Your task to perform on an android device: What's the weather going to be this weekend? Image 0: 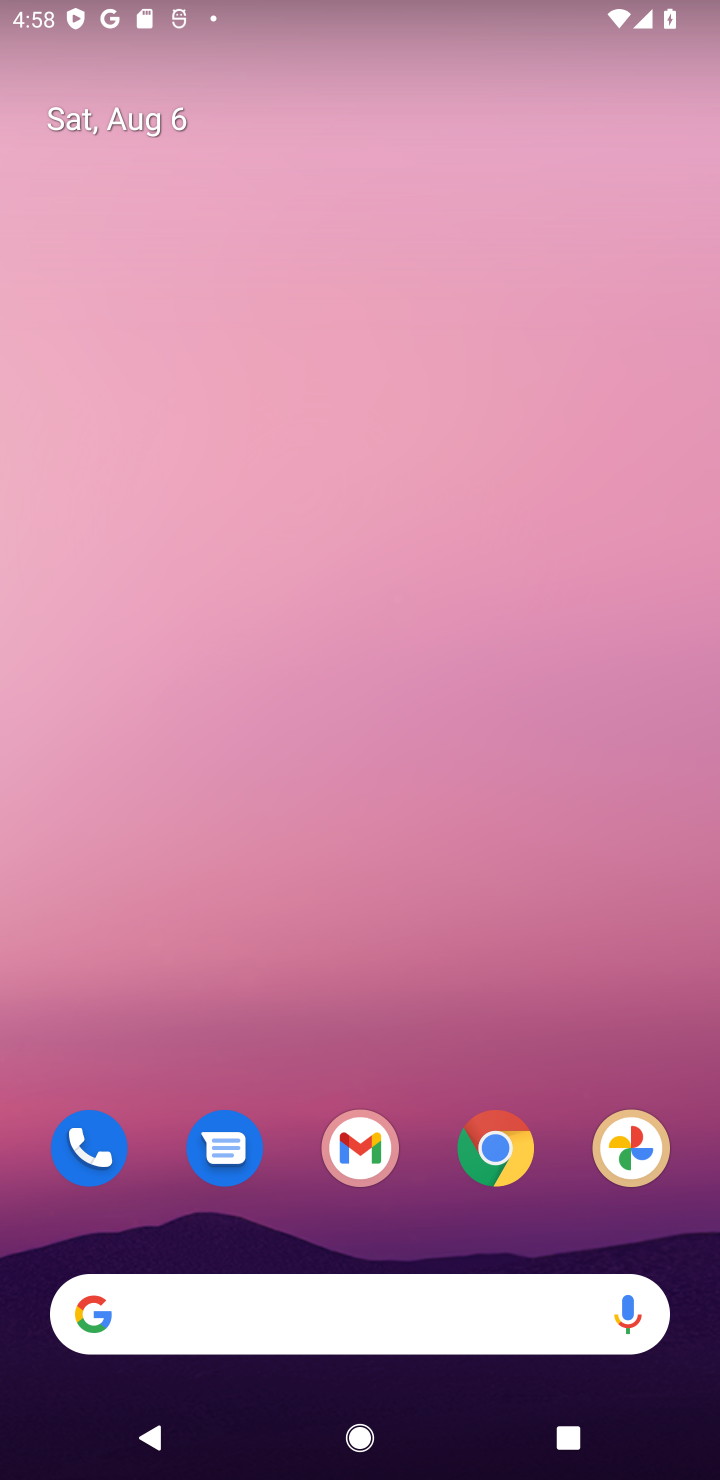
Step 0: drag from (288, 1290) to (679, 210)
Your task to perform on an android device: What's the weather going to be this weekend? Image 1: 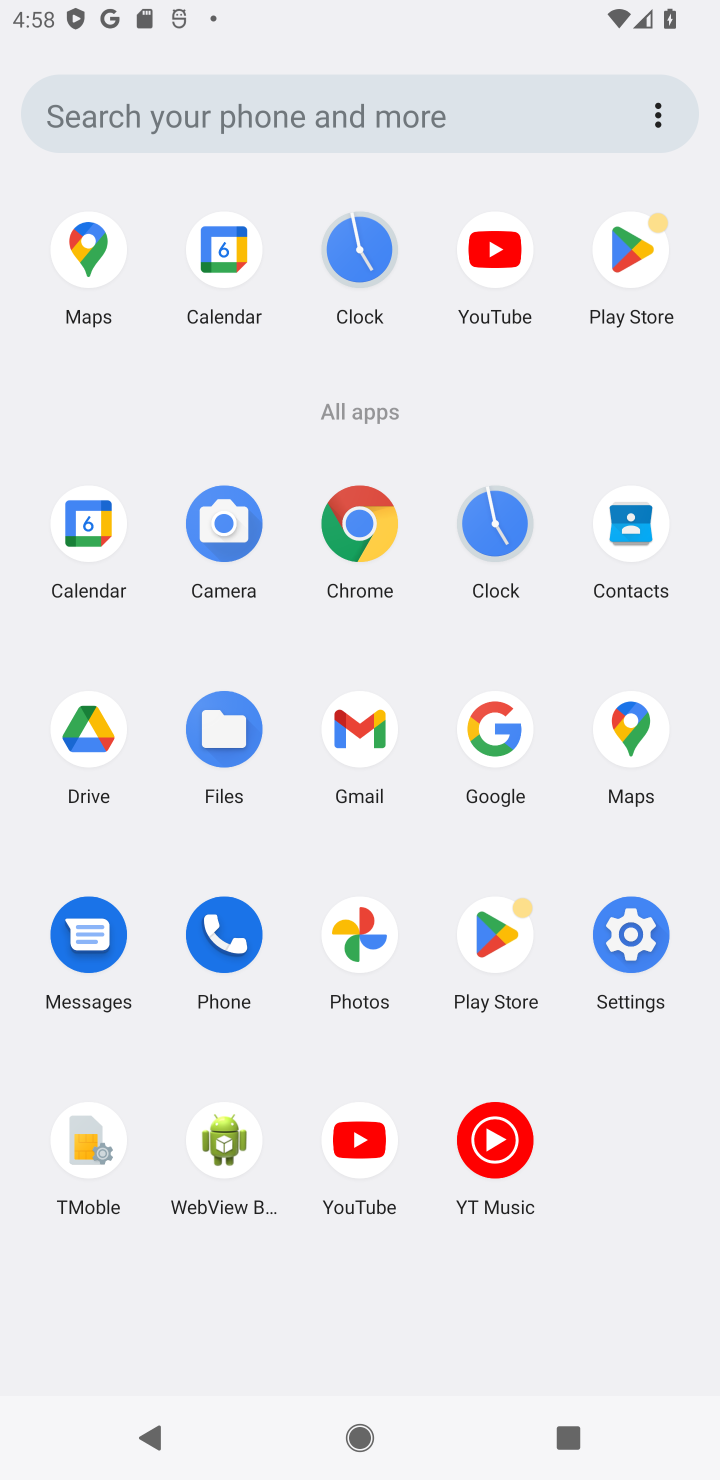
Step 1: click (491, 770)
Your task to perform on an android device: What's the weather going to be this weekend? Image 2: 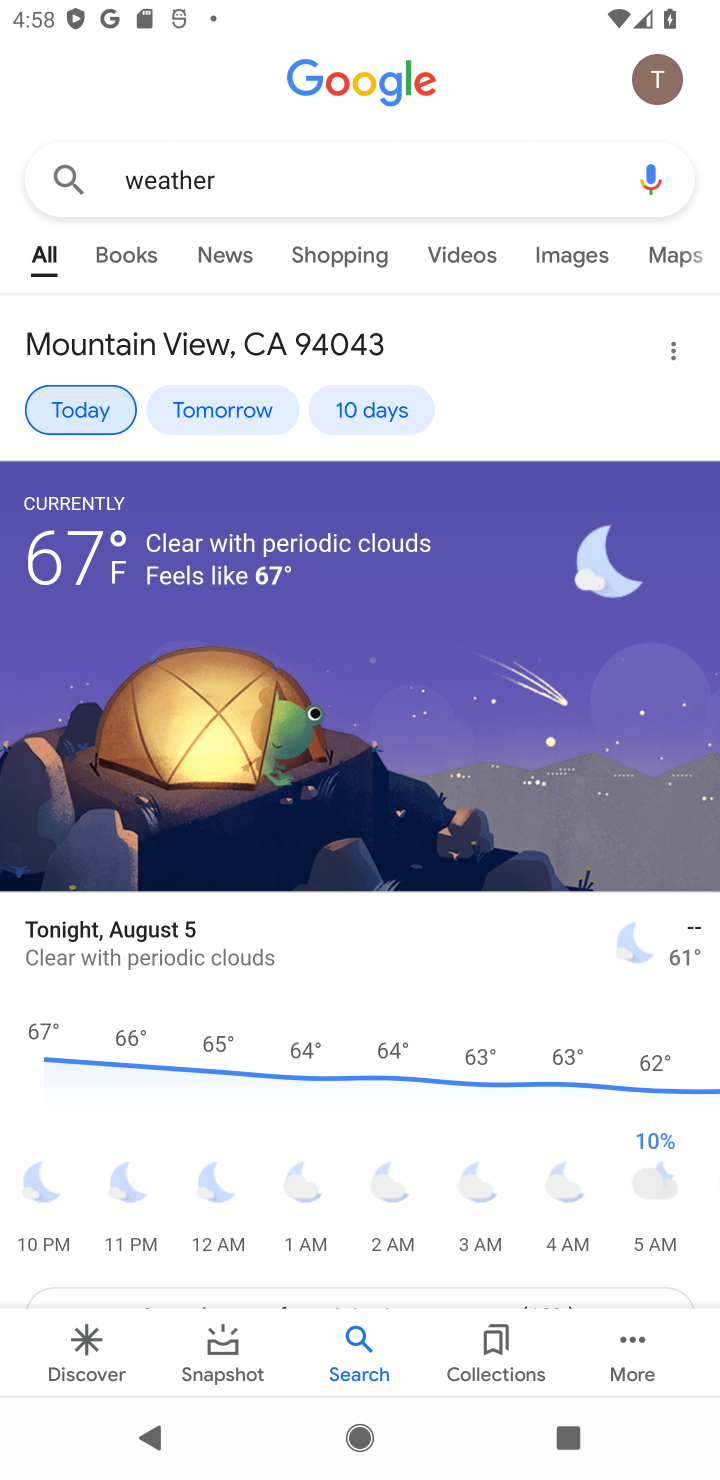
Step 2: click (390, 390)
Your task to perform on an android device: What's the weather going to be this weekend? Image 3: 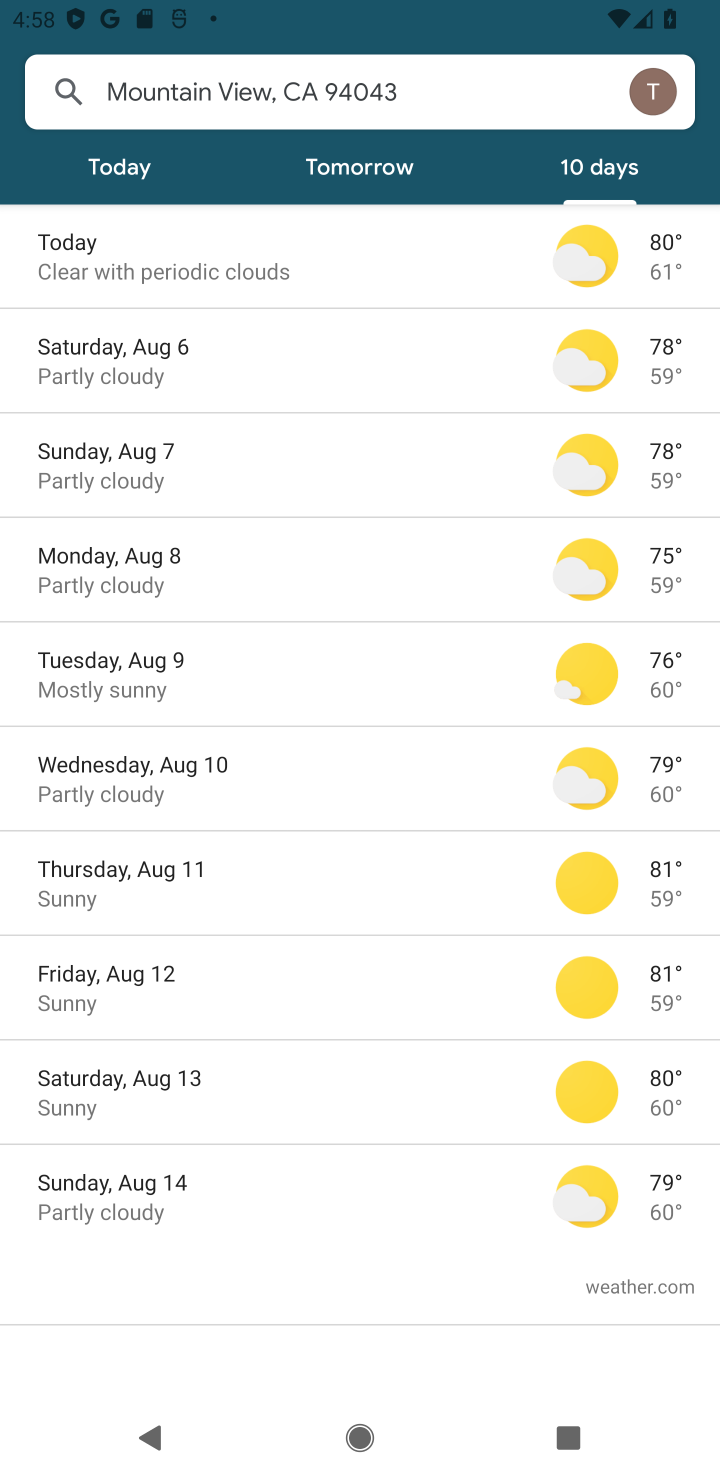
Step 3: task complete